Your task to perform on an android device: turn on the 24-hour format for clock Image 0: 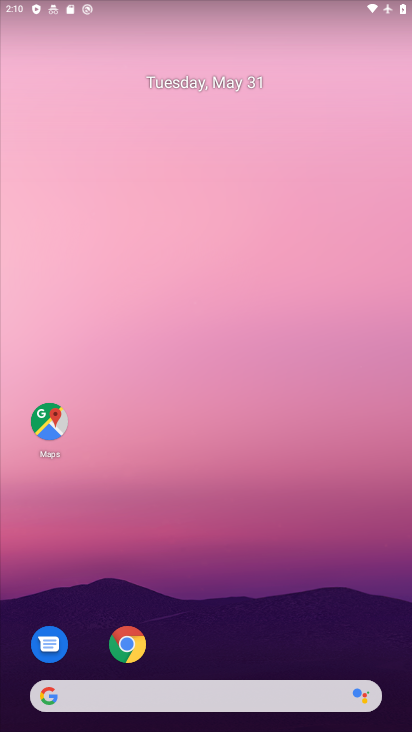
Step 0: drag from (258, 621) to (265, 193)
Your task to perform on an android device: turn on the 24-hour format for clock Image 1: 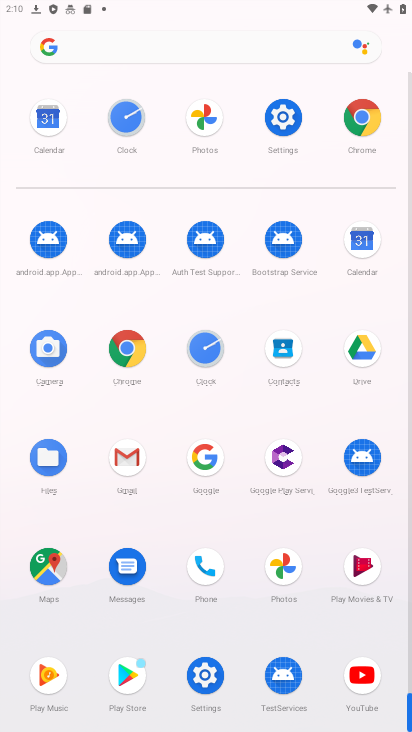
Step 1: click (198, 340)
Your task to perform on an android device: turn on the 24-hour format for clock Image 2: 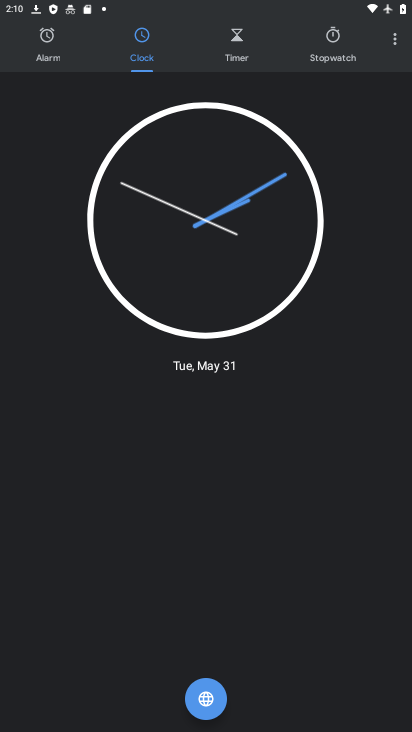
Step 2: click (399, 44)
Your task to perform on an android device: turn on the 24-hour format for clock Image 3: 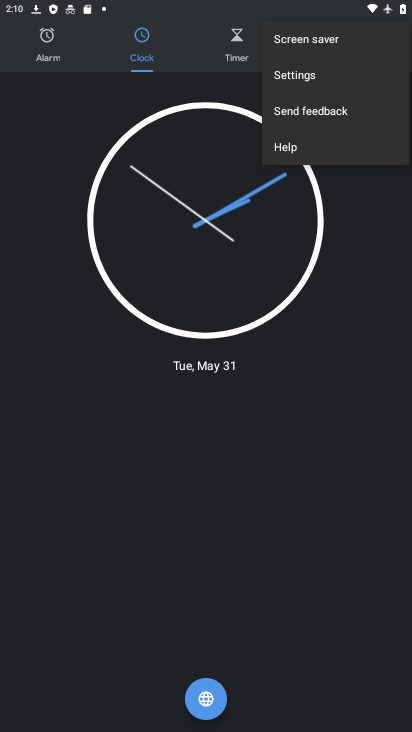
Step 3: click (308, 74)
Your task to perform on an android device: turn on the 24-hour format for clock Image 4: 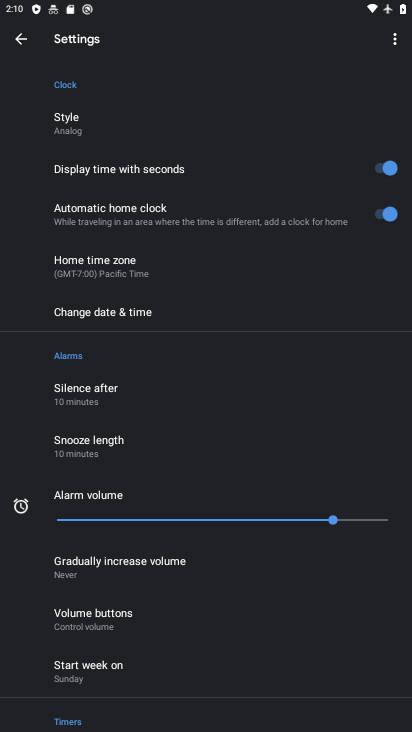
Step 4: click (107, 320)
Your task to perform on an android device: turn on the 24-hour format for clock Image 5: 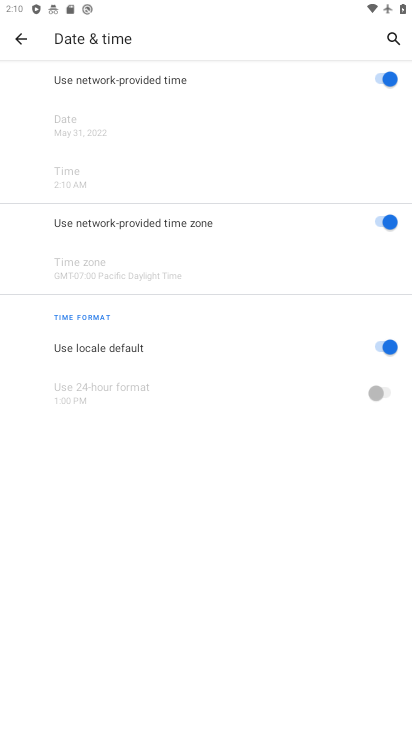
Step 5: click (381, 341)
Your task to perform on an android device: turn on the 24-hour format for clock Image 6: 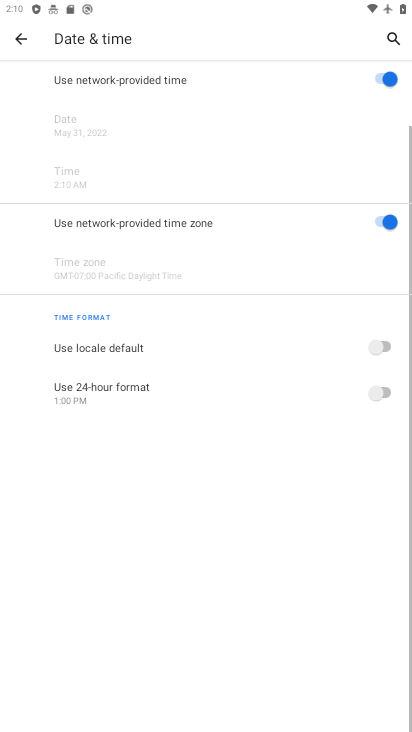
Step 6: click (376, 391)
Your task to perform on an android device: turn on the 24-hour format for clock Image 7: 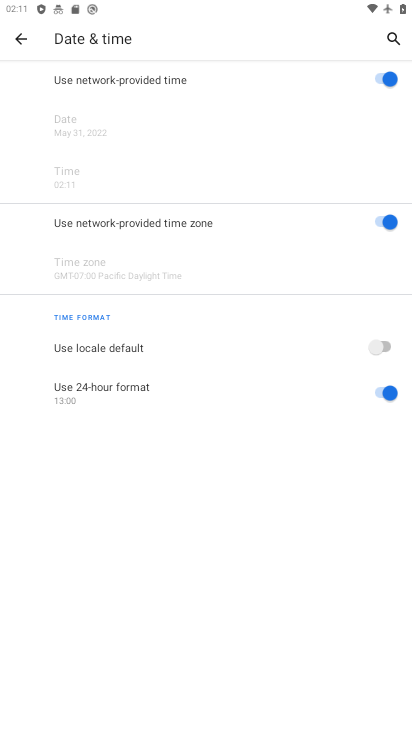
Step 7: task complete